Your task to perform on an android device: search for starred emails in the gmail app Image 0: 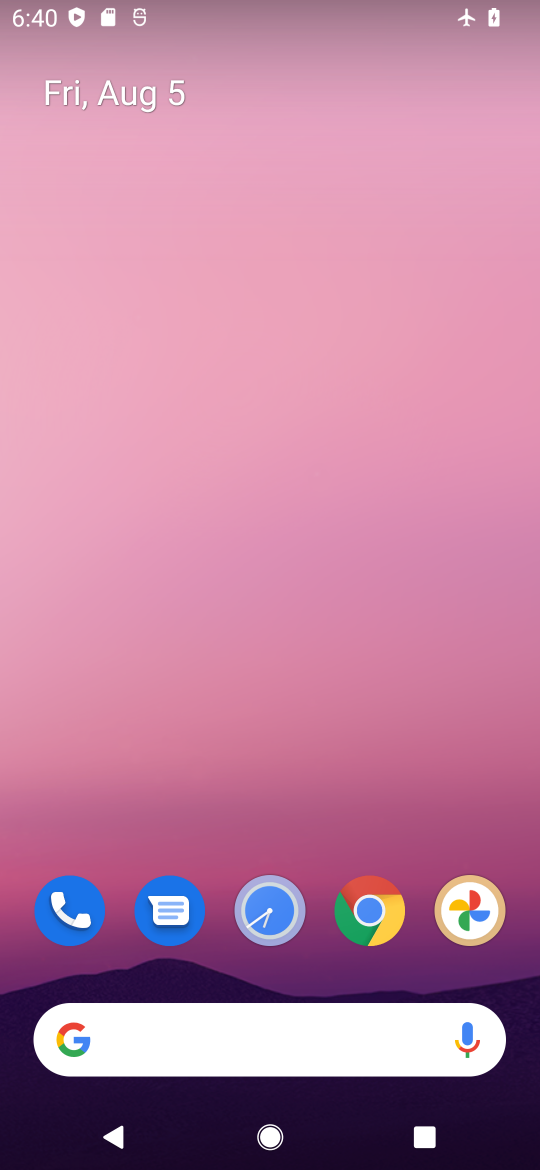
Step 0: drag from (316, 1034) to (392, 83)
Your task to perform on an android device: search for starred emails in the gmail app Image 1: 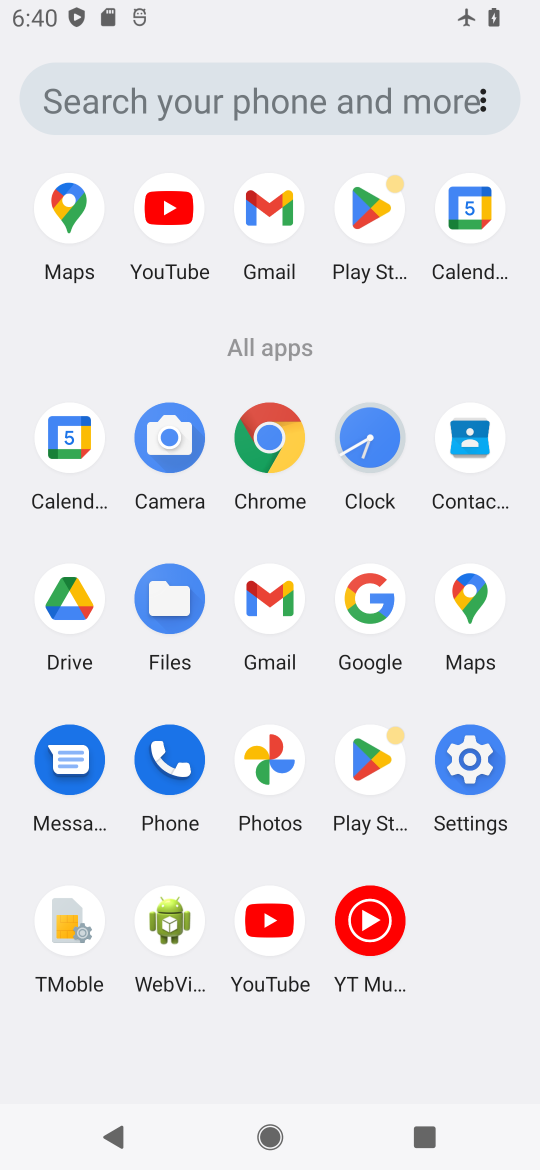
Step 1: press home button
Your task to perform on an android device: search for starred emails in the gmail app Image 2: 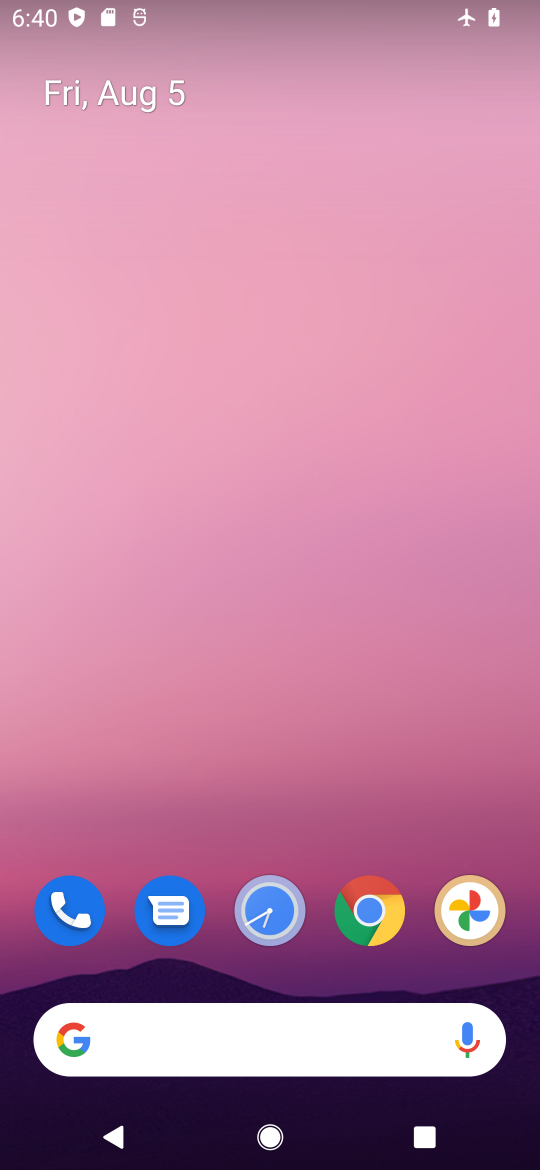
Step 2: drag from (206, 0) to (202, 1037)
Your task to perform on an android device: search for starred emails in the gmail app Image 3: 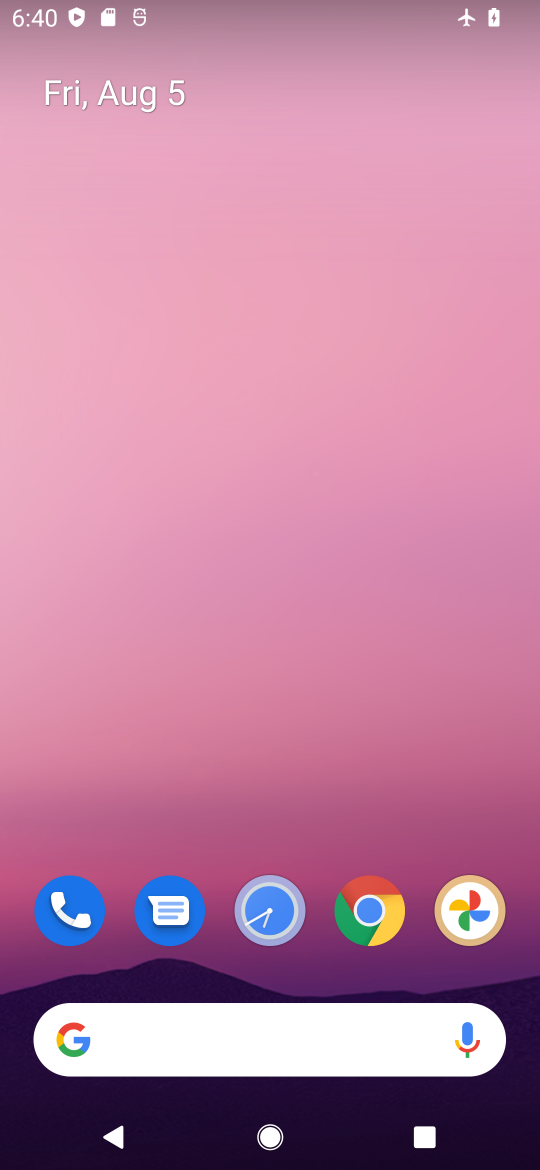
Step 3: drag from (276, 1068) to (298, 109)
Your task to perform on an android device: search for starred emails in the gmail app Image 4: 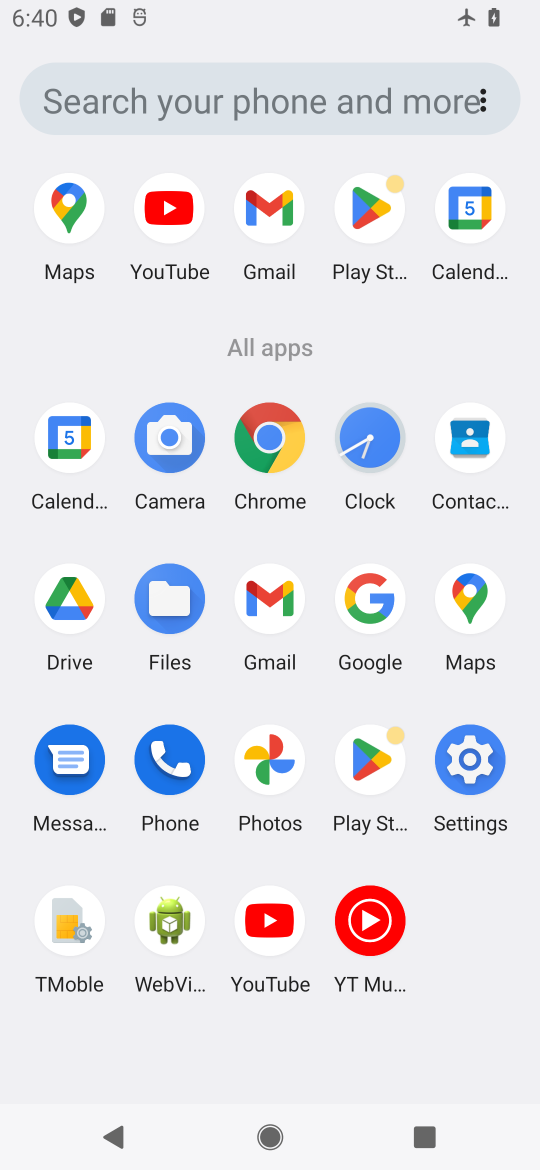
Step 4: click (475, 728)
Your task to perform on an android device: search for starred emails in the gmail app Image 5: 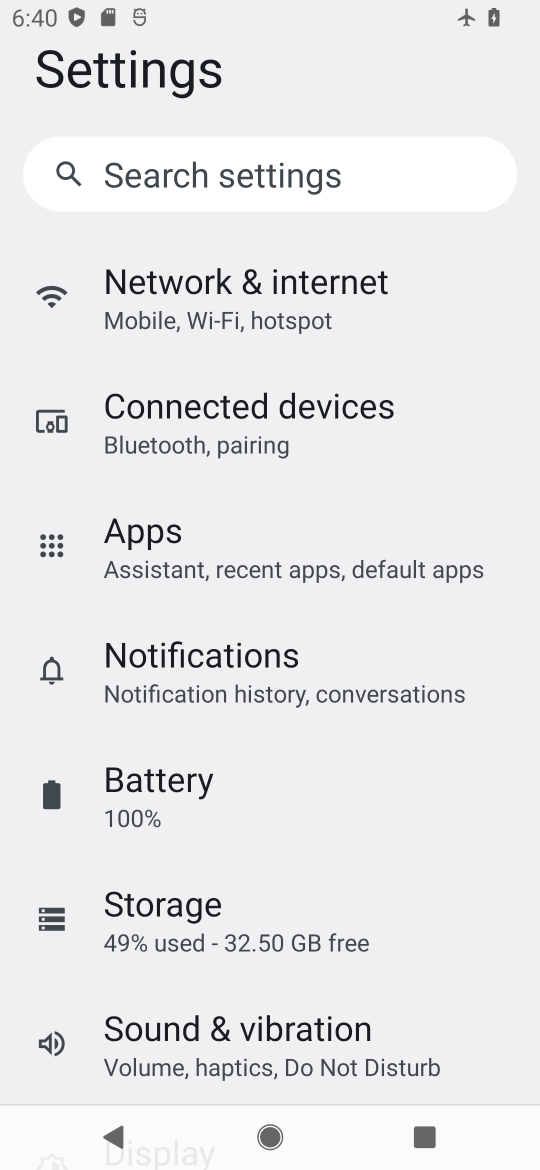
Step 5: click (232, 280)
Your task to perform on an android device: search for starred emails in the gmail app Image 6: 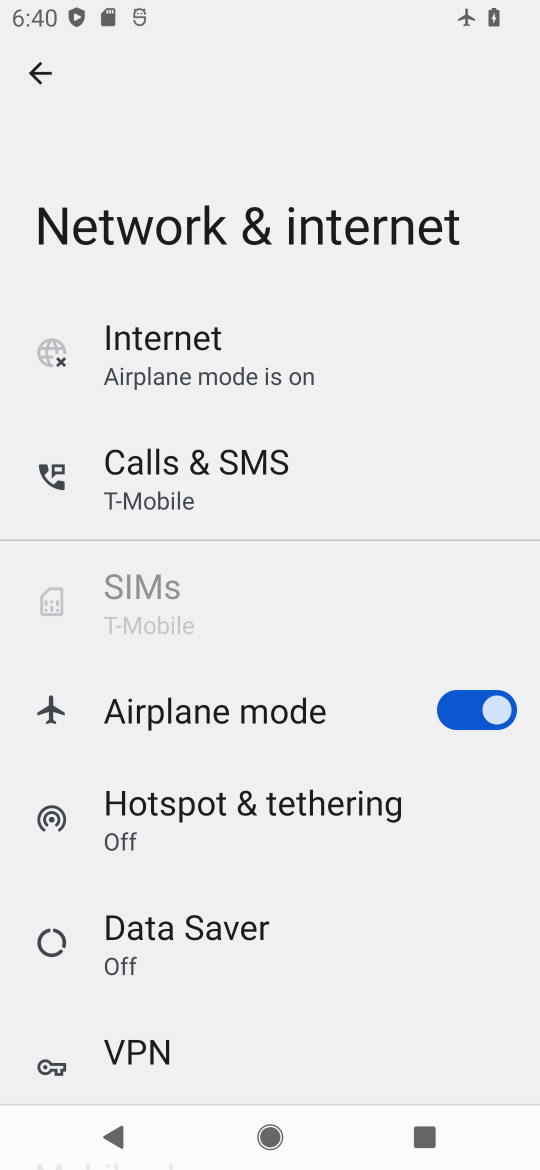
Step 6: click (471, 722)
Your task to perform on an android device: search for starred emails in the gmail app Image 7: 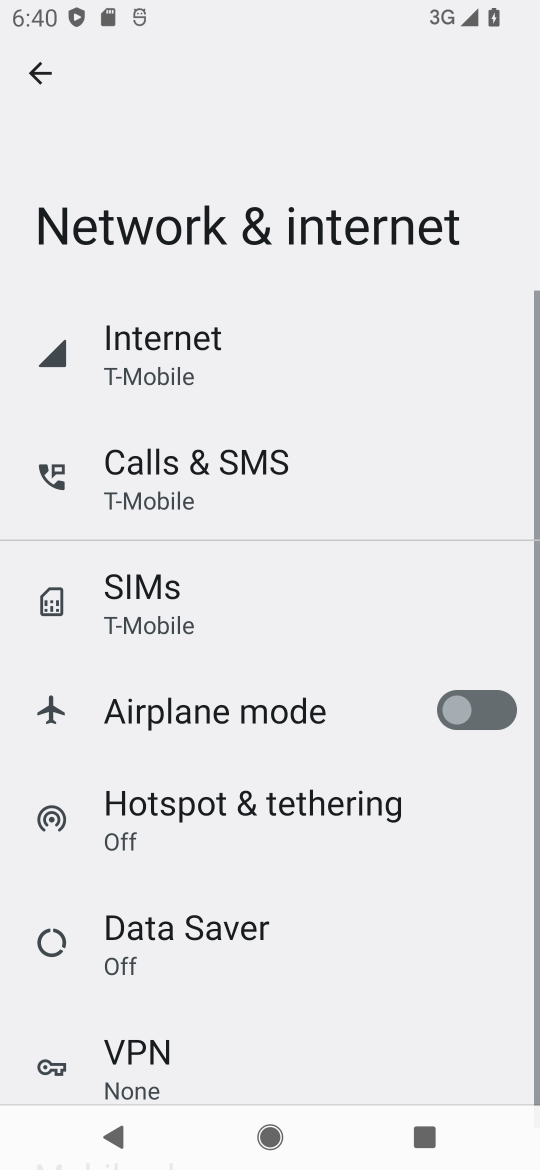
Step 7: task complete